Your task to perform on an android device: remove spam from my inbox in the gmail app Image 0: 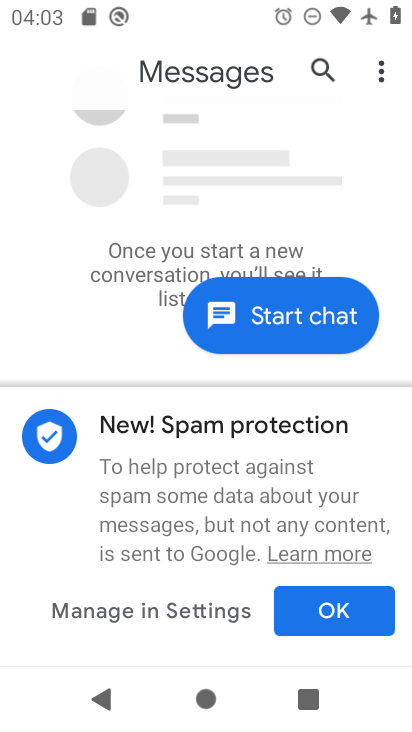
Step 0: press home button
Your task to perform on an android device: remove spam from my inbox in the gmail app Image 1: 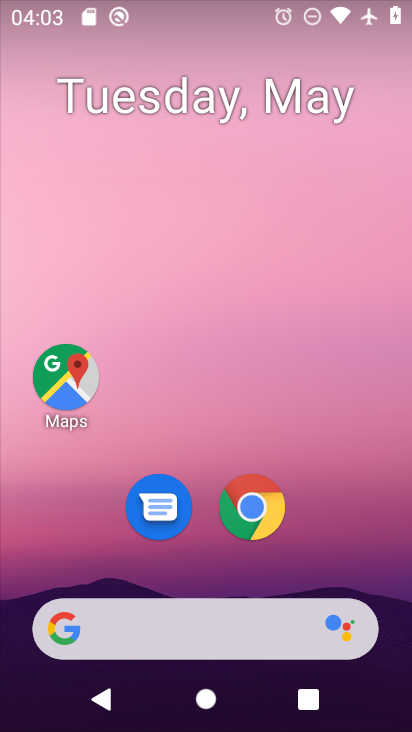
Step 1: drag from (211, 572) to (220, 59)
Your task to perform on an android device: remove spam from my inbox in the gmail app Image 2: 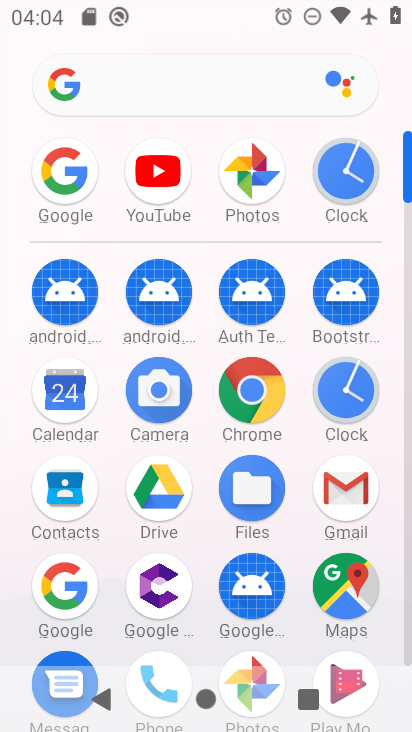
Step 2: click (347, 493)
Your task to perform on an android device: remove spam from my inbox in the gmail app Image 3: 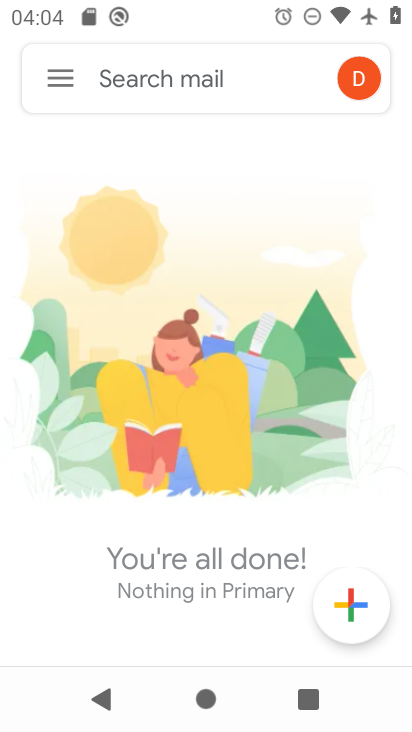
Step 3: click (77, 77)
Your task to perform on an android device: remove spam from my inbox in the gmail app Image 4: 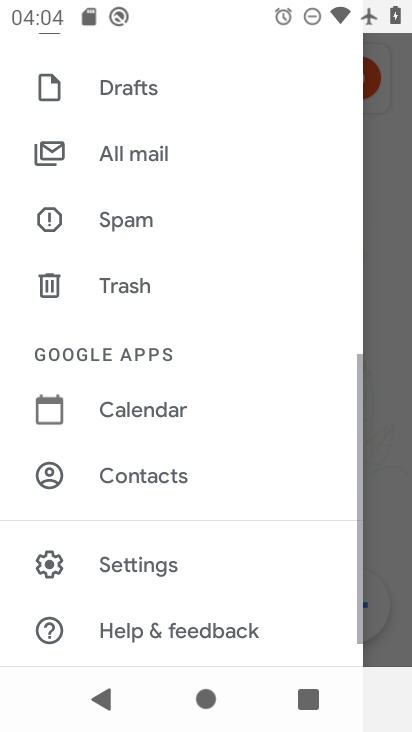
Step 4: click (137, 224)
Your task to perform on an android device: remove spam from my inbox in the gmail app Image 5: 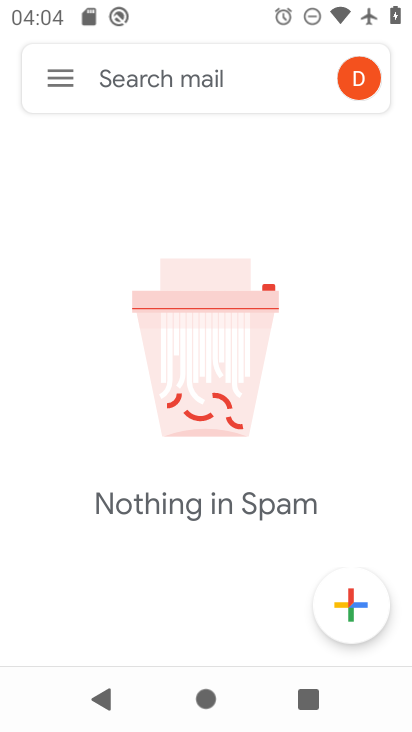
Step 5: task complete